Your task to perform on an android device: Do I have any events this weekend? Image 0: 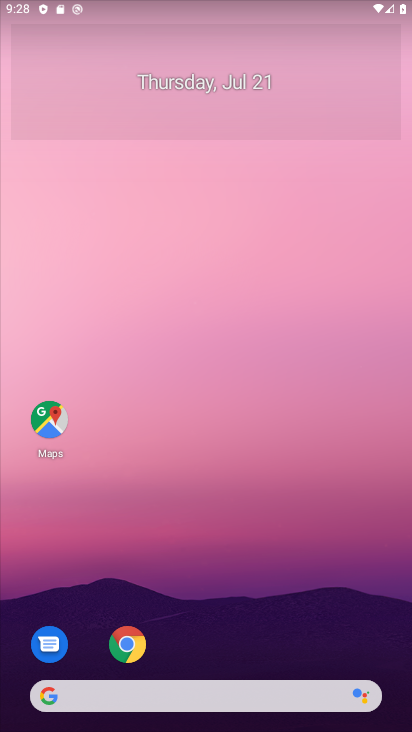
Step 0: task complete